Your task to perform on an android device: Open location settings Image 0: 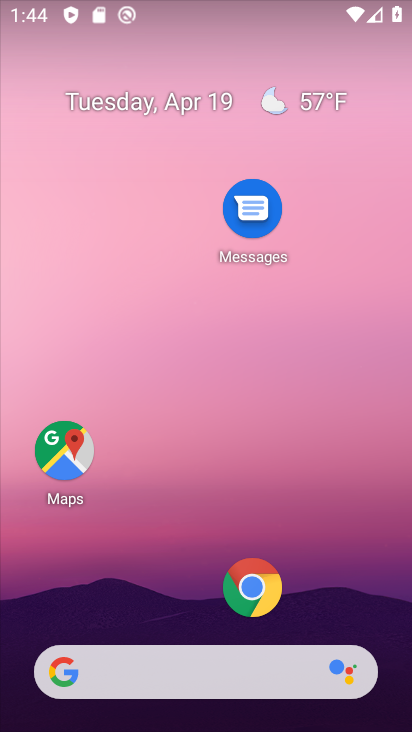
Step 0: drag from (132, 630) to (230, 117)
Your task to perform on an android device: Open location settings Image 1: 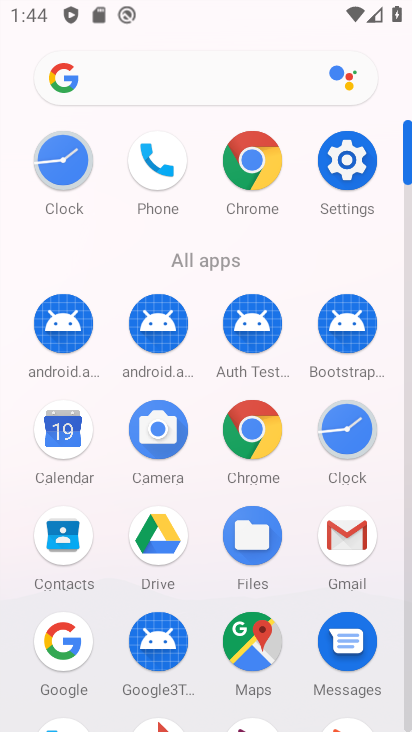
Step 1: click (353, 167)
Your task to perform on an android device: Open location settings Image 2: 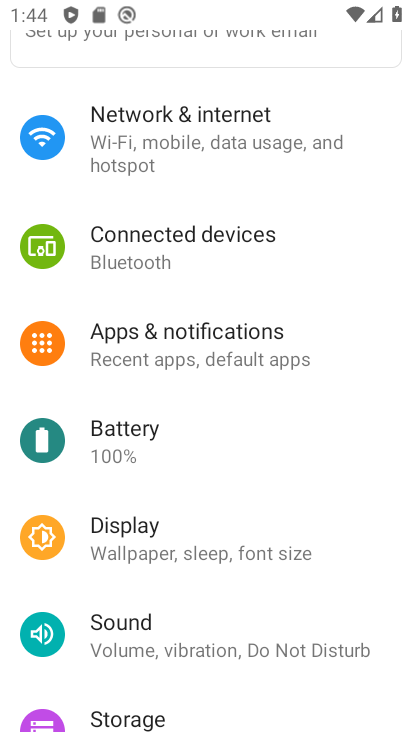
Step 2: drag from (213, 554) to (319, 181)
Your task to perform on an android device: Open location settings Image 3: 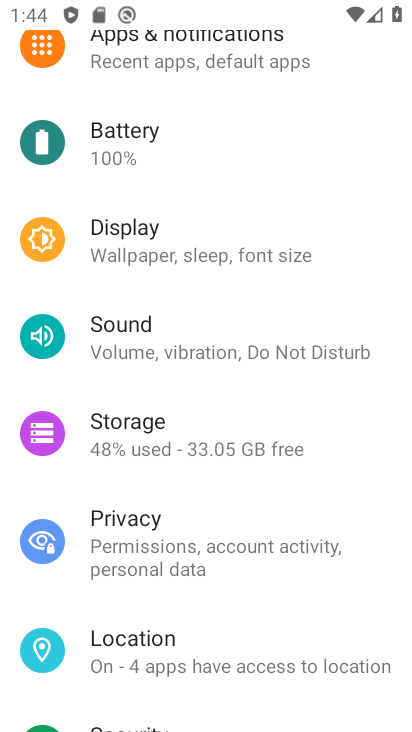
Step 3: drag from (175, 608) to (257, 319)
Your task to perform on an android device: Open location settings Image 4: 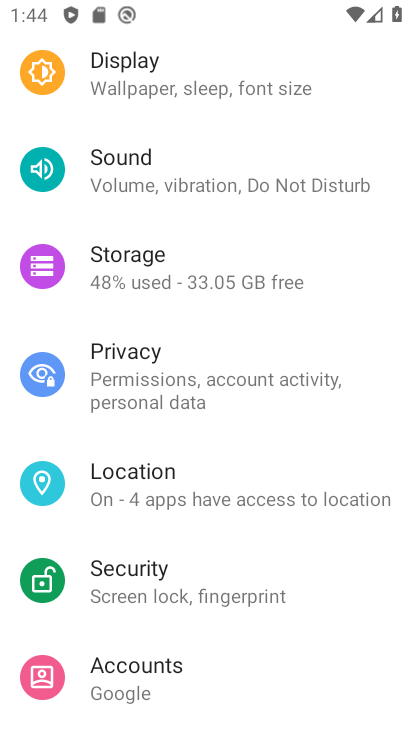
Step 4: drag from (215, 192) to (289, 388)
Your task to perform on an android device: Open location settings Image 5: 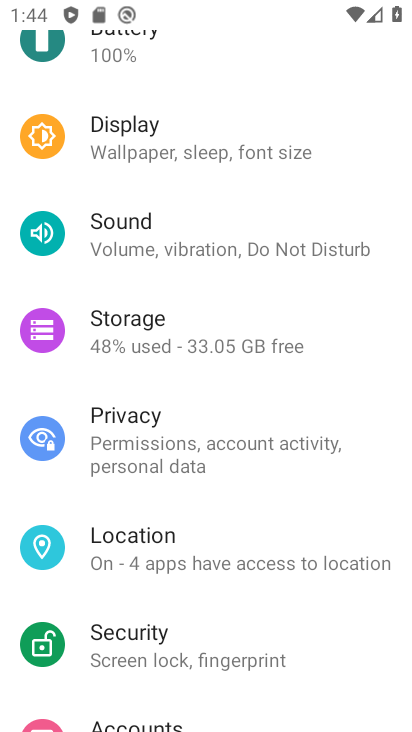
Step 5: click (145, 561)
Your task to perform on an android device: Open location settings Image 6: 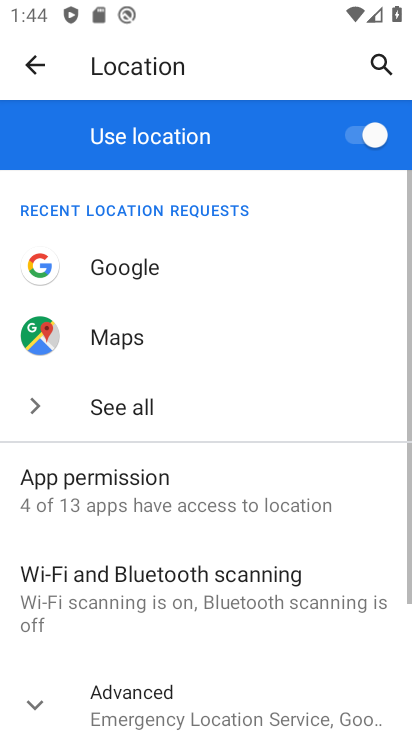
Step 6: drag from (230, 611) to (284, 384)
Your task to perform on an android device: Open location settings Image 7: 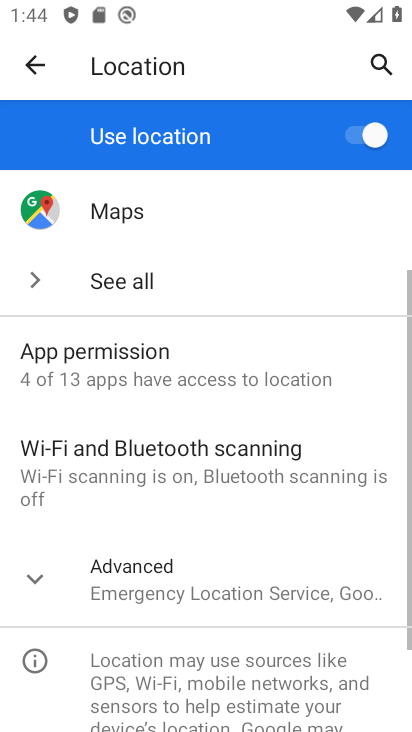
Step 7: click (214, 606)
Your task to perform on an android device: Open location settings Image 8: 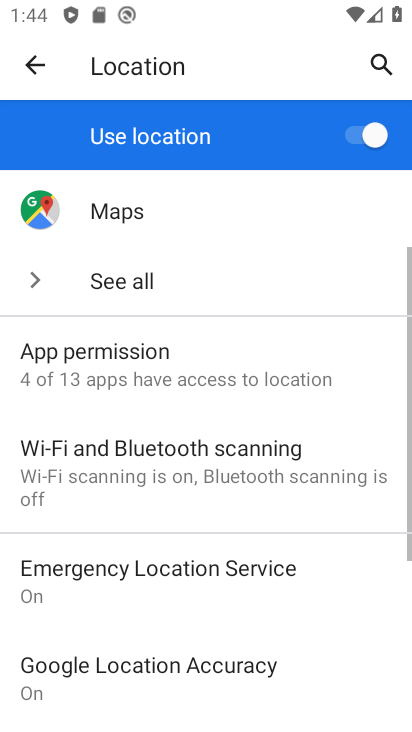
Step 8: task complete